Your task to perform on an android device: Open notification settings Image 0: 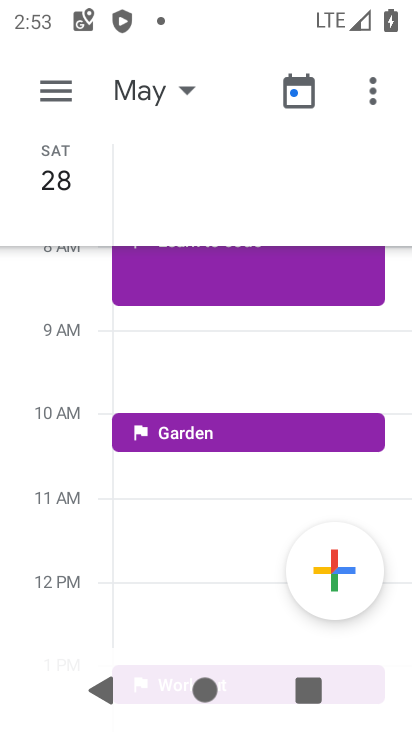
Step 0: press home button
Your task to perform on an android device: Open notification settings Image 1: 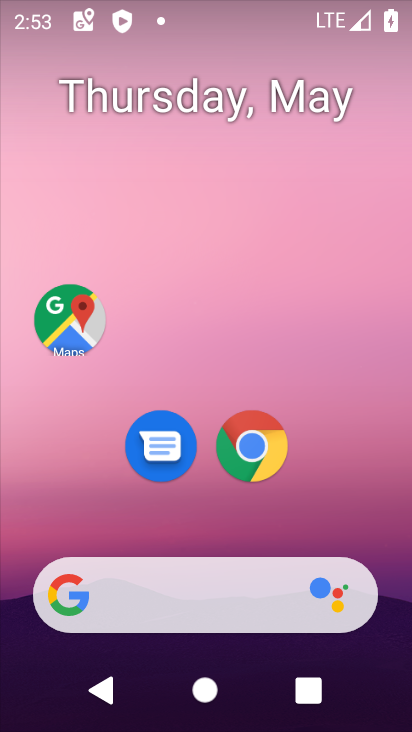
Step 1: drag from (214, 536) to (310, 29)
Your task to perform on an android device: Open notification settings Image 2: 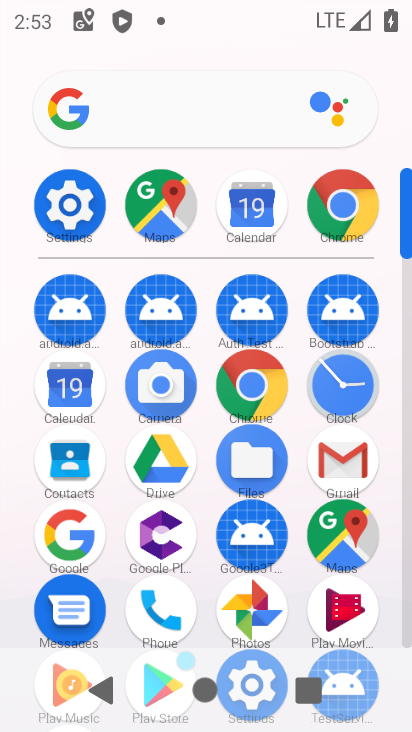
Step 2: click (70, 206)
Your task to perform on an android device: Open notification settings Image 3: 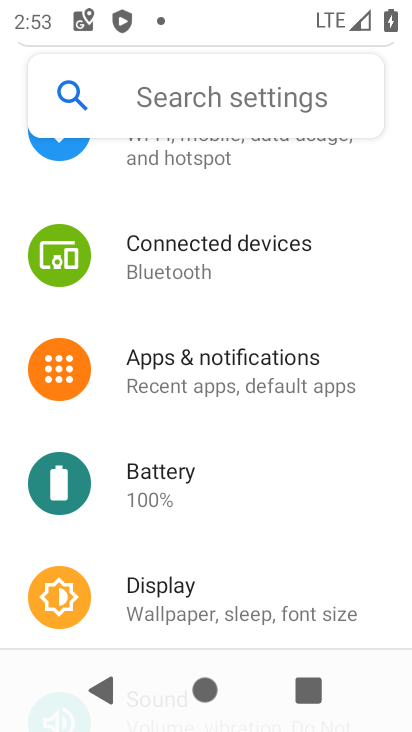
Step 3: click (174, 373)
Your task to perform on an android device: Open notification settings Image 4: 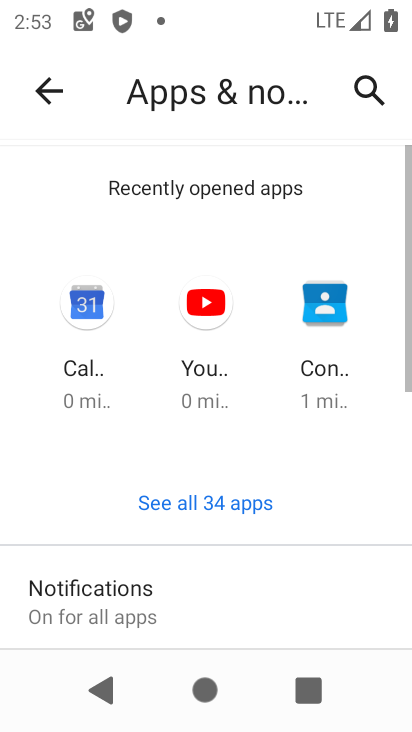
Step 4: click (127, 596)
Your task to perform on an android device: Open notification settings Image 5: 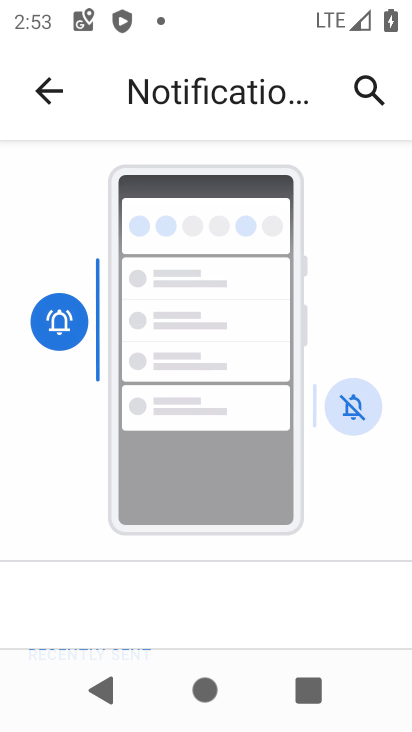
Step 5: task complete